Your task to perform on an android device: Is it going to rain today? Image 0: 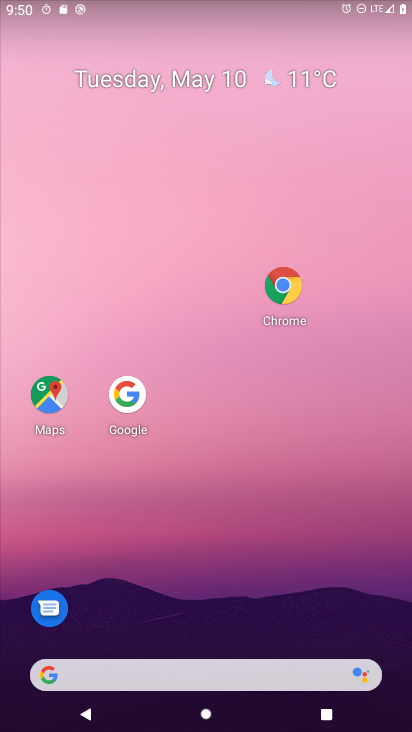
Step 0: click (309, 74)
Your task to perform on an android device: Is it going to rain today? Image 1: 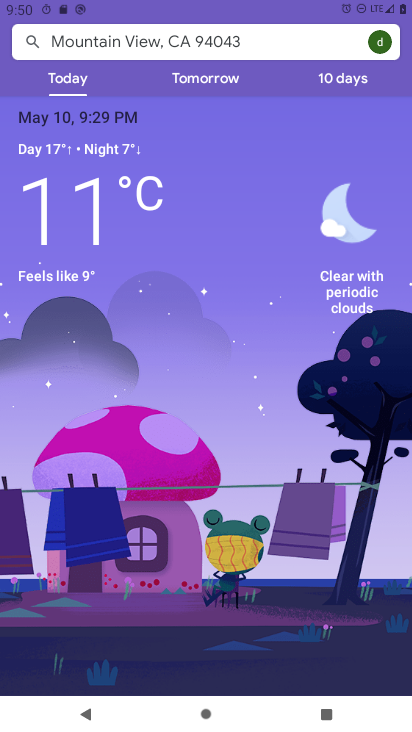
Step 1: task complete